Your task to perform on an android device: add a label to a message in the gmail app Image 0: 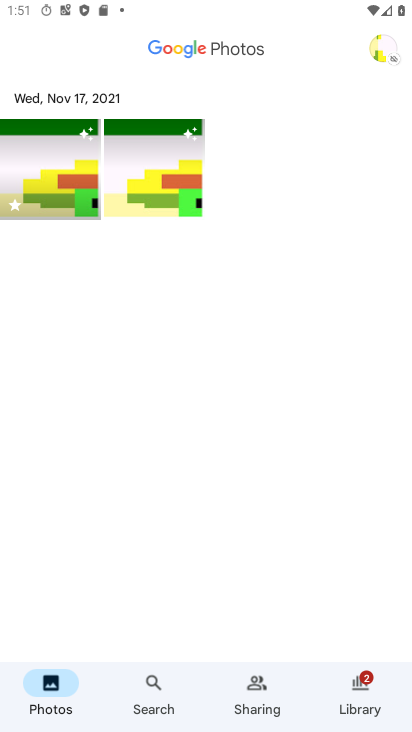
Step 0: press home button
Your task to perform on an android device: add a label to a message in the gmail app Image 1: 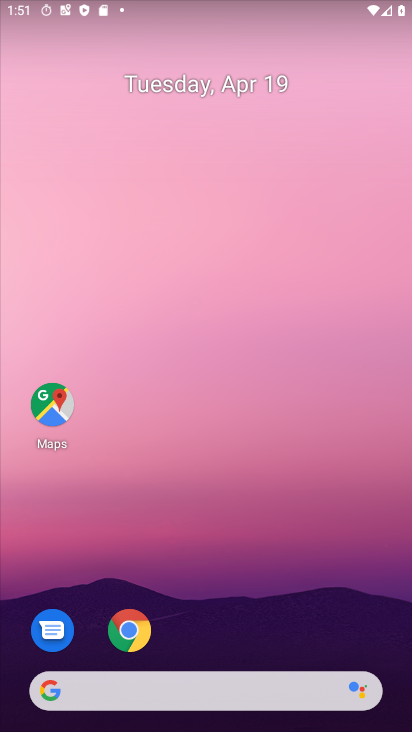
Step 1: drag from (202, 581) to (224, 48)
Your task to perform on an android device: add a label to a message in the gmail app Image 2: 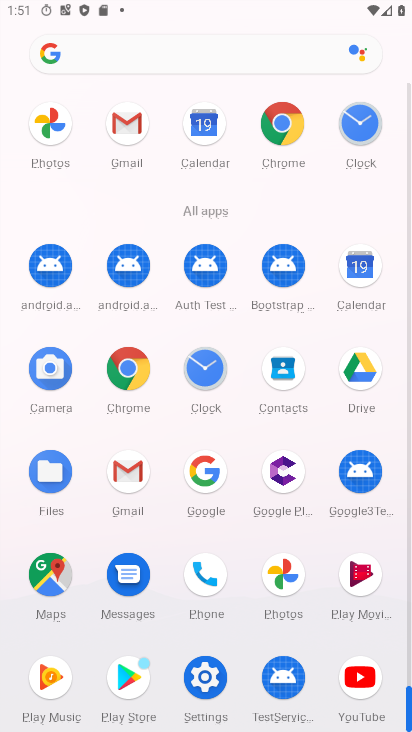
Step 2: drag from (300, 562) to (297, 62)
Your task to perform on an android device: add a label to a message in the gmail app Image 3: 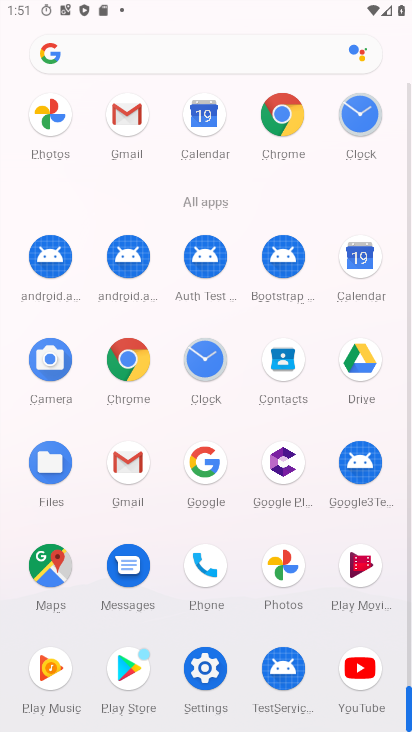
Step 3: click (127, 94)
Your task to perform on an android device: add a label to a message in the gmail app Image 4: 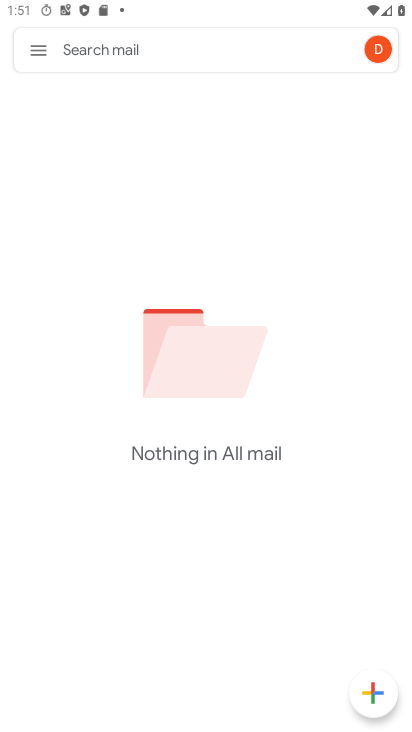
Step 4: task complete